Your task to perform on an android device: Go to settings Image 0: 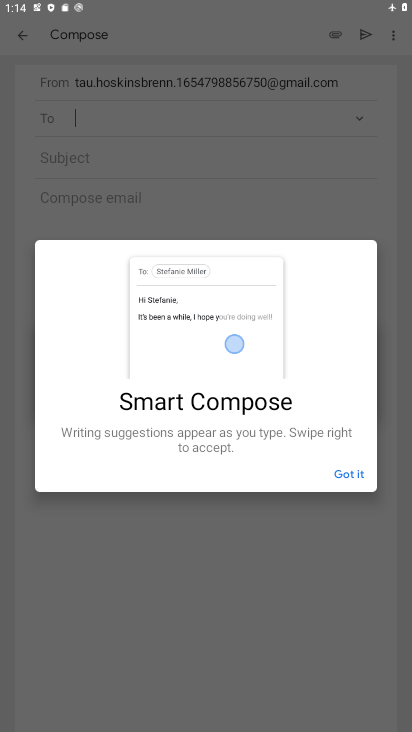
Step 0: press home button
Your task to perform on an android device: Go to settings Image 1: 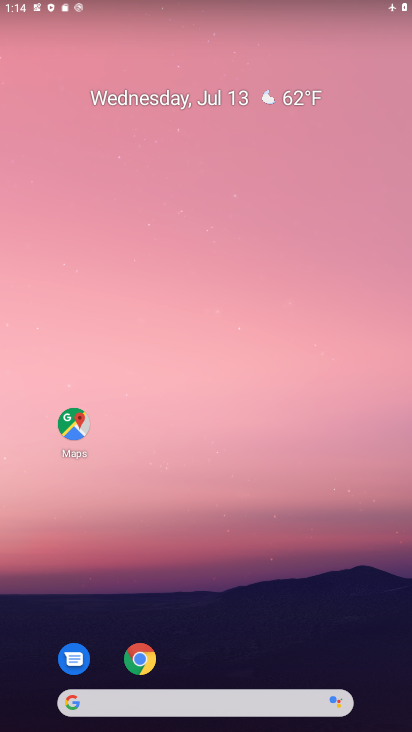
Step 1: drag from (190, 728) to (191, 679)
Your task to perform on an android device: Go to settings Image 2: 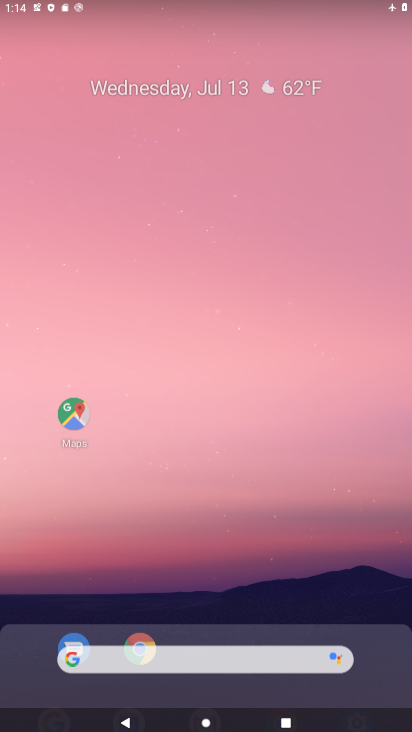
Step 2: drag from (191, 184) to (191, 113)
Your task to perform on an android device: Go to settings Image 3: 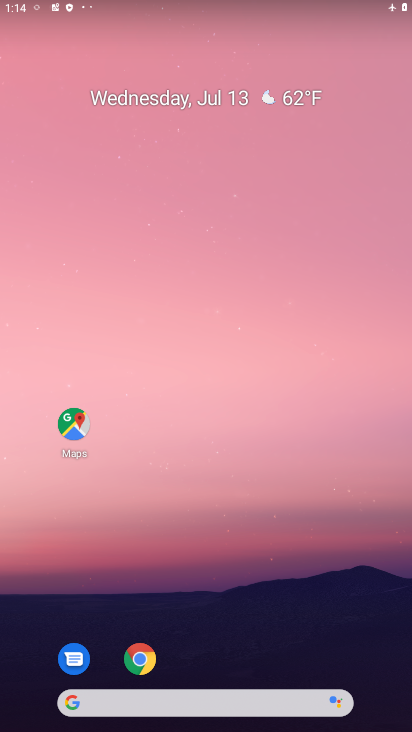
Step 3: drag from (238, 731) to (231, 121)
Your task to perform on an android device: Go to settings Image 4: 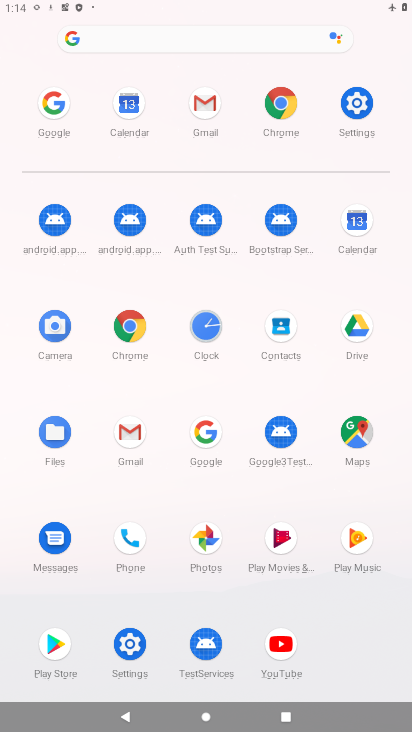
Step 4: click (351, 98)
Your task to perform on an android device: Go to settings Image 5: 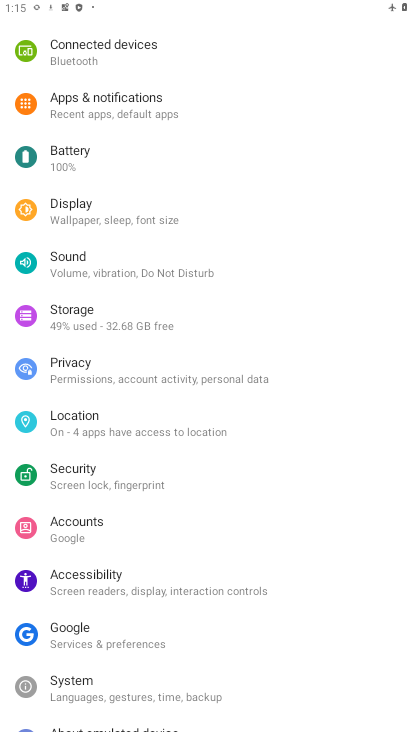
Step 5: task complete